Your task to perform on an android device: What's on my calendar for the rest of the week? Image 0: 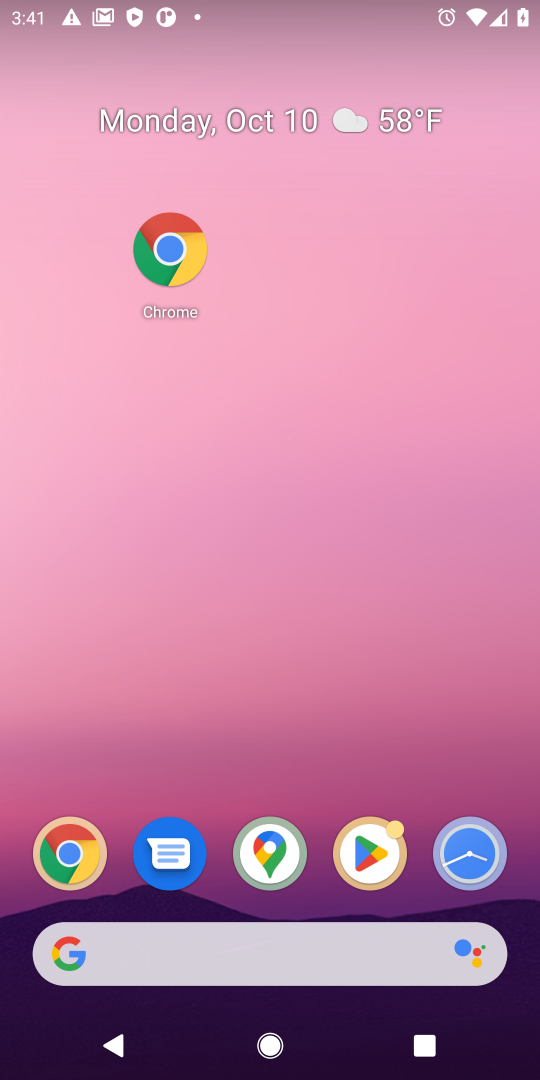
Step 0: drag from (211, 888) to (197, 359)
Your task to perform on an android device: What's on my calendar for the rest of the week? Image 1: 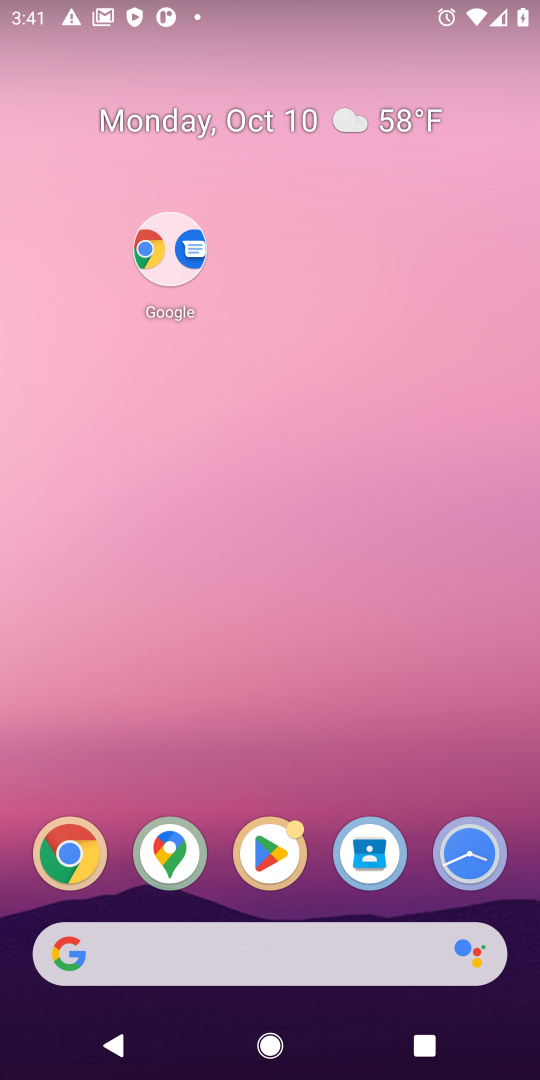
Step 1: drag from (229, 770) to (352, 100)
Your task to perform on an android device: What's on my calendar for the rest of the week? Image 2: 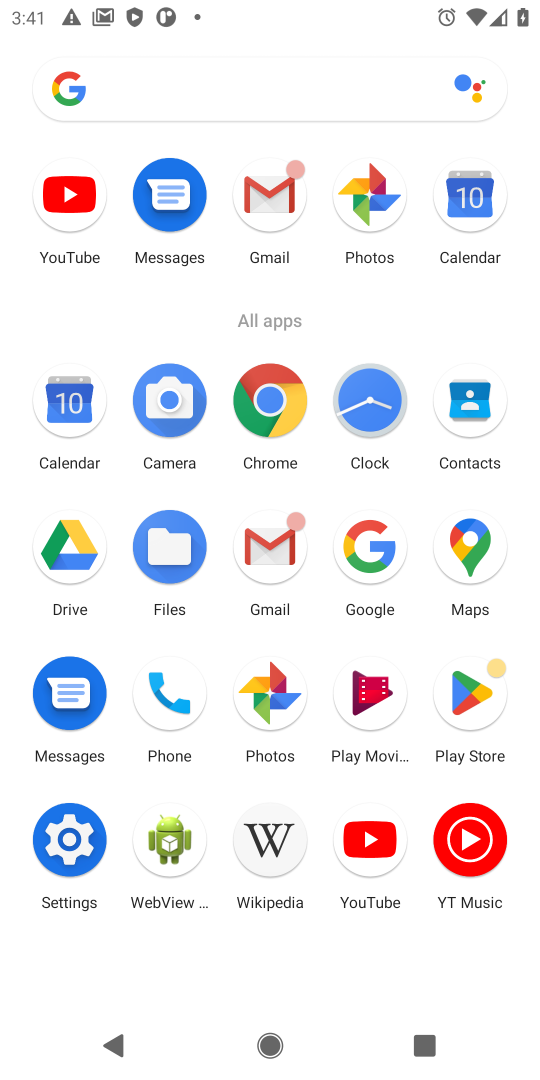
Step 2: click (73, 413)
Your task to perform on an android device: What's on my calendar for the rest of the week? Image 3: 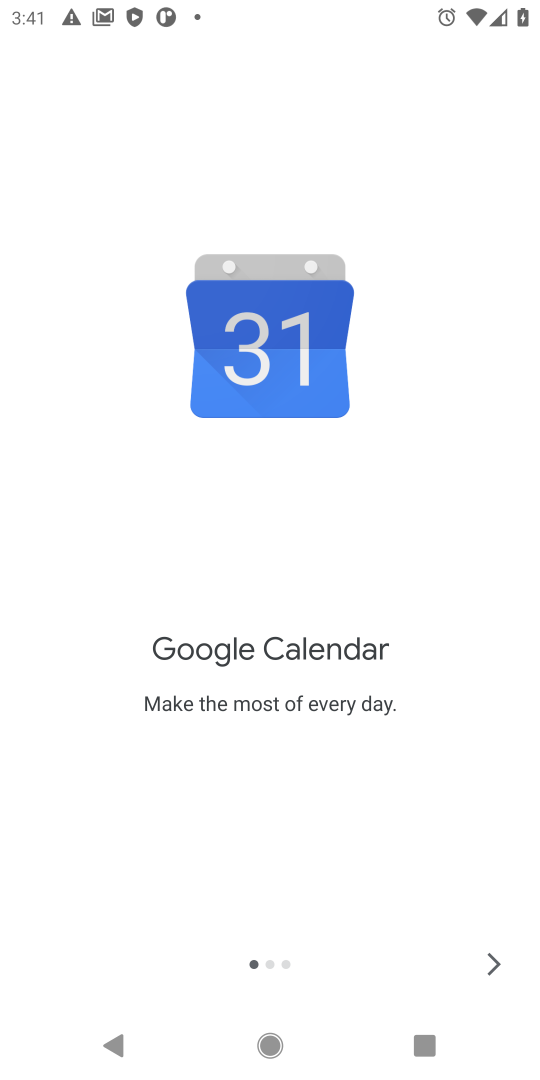
Step 3: click (487, 951)
Your task to perform on an android device: What's on my calendar for the rest of the week? Image 4: 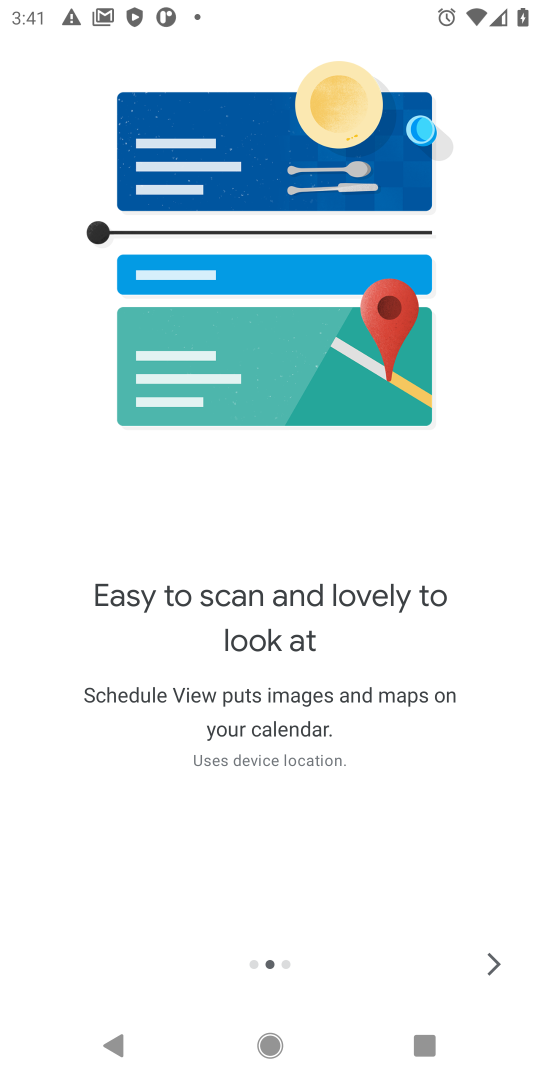
Step 4: click (479, 962)
Your task to perform on an android device: What's on my calendar for the rest of the week? Image 5: 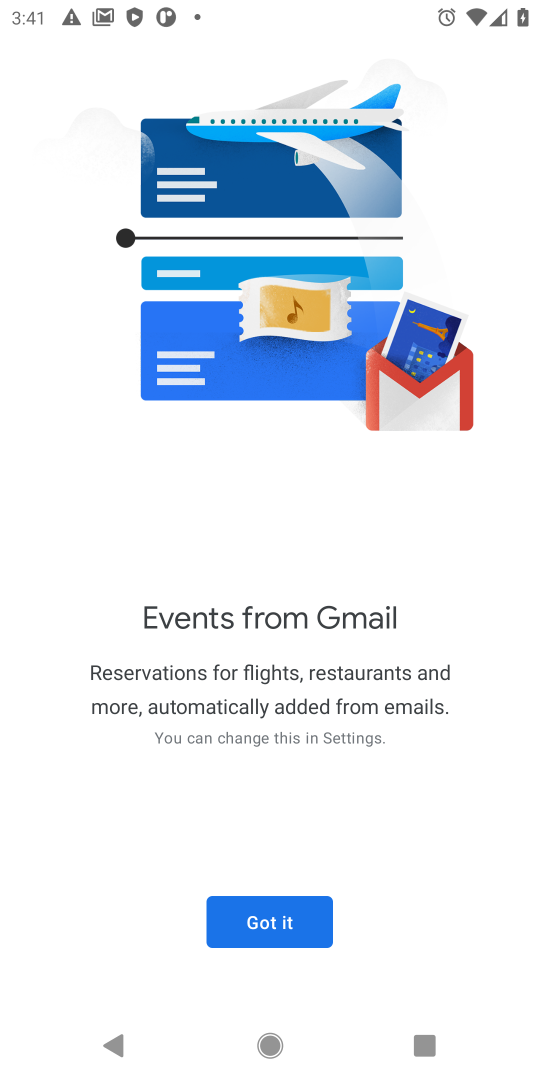
Step 5: click (284, 909)
Your task to perform on an android device: What's on my calendar for the rest of the week? Image 6: 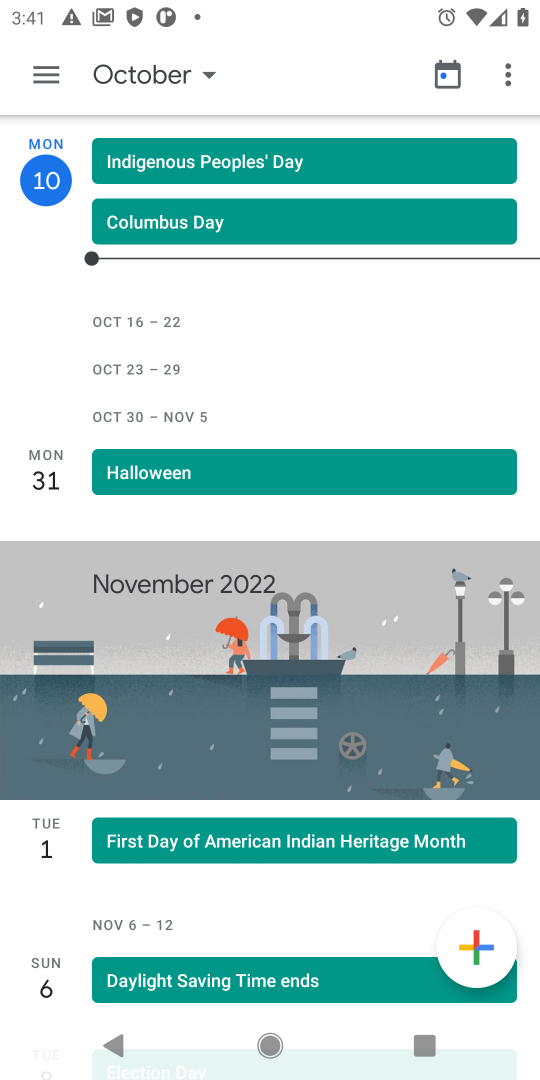
Step 6: click (45, 65)
Your task to perform on an android device: What's on my calendar for the rest of the week? Image 7: 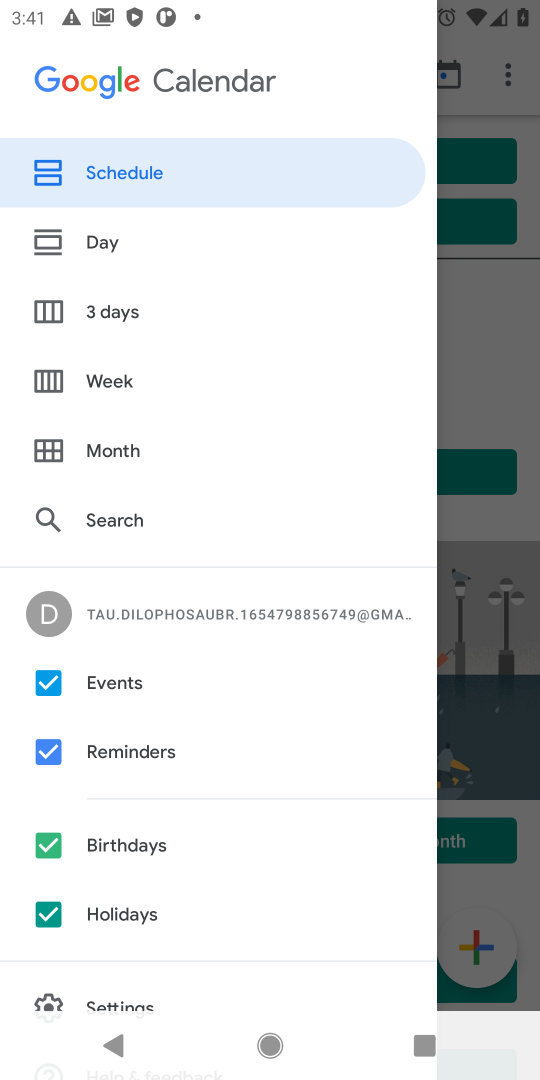
Step 7: click (119, 376)
Your task to perform on an android device: What's on my calendar for the rest of the week? Image 8: 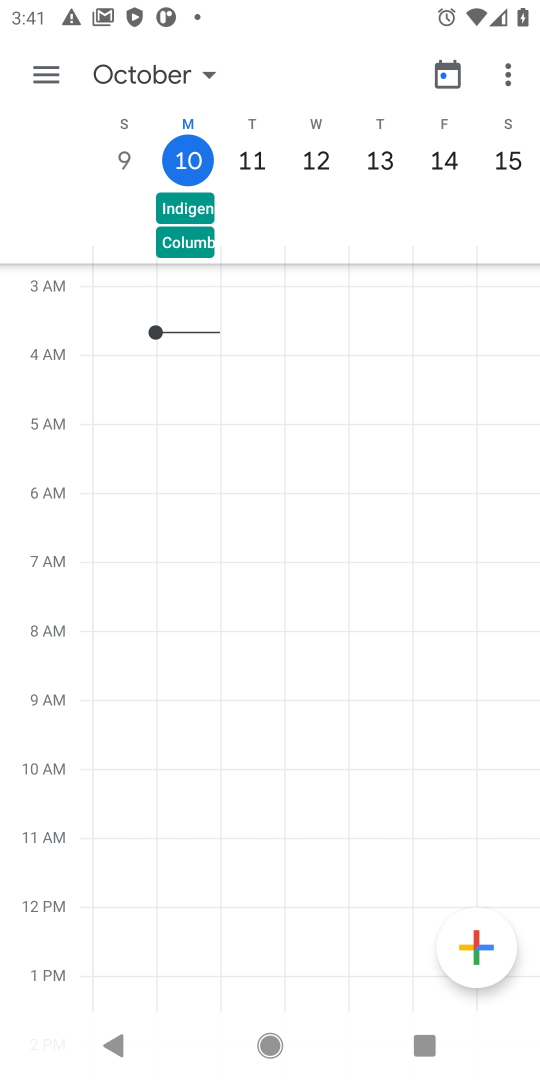
Step 8: task complete